Your task to perform on an android device: turn off picture-in-picture Image 0: 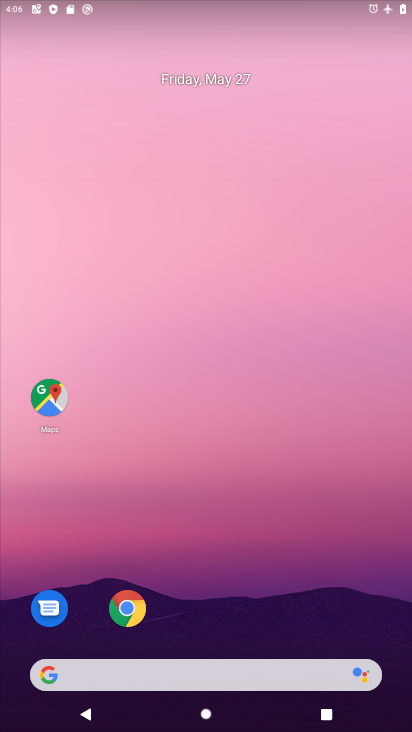
Step 0: click (130, 608)
Your task to perform on an android device: turn off picture-in-picture Image 1: 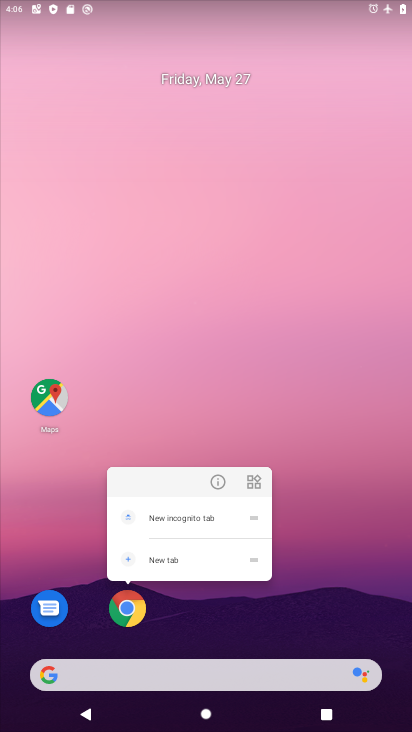
Step 1: click (217, 474)
Your task to perform on an android device: turn off picture-in-picture Image 2: 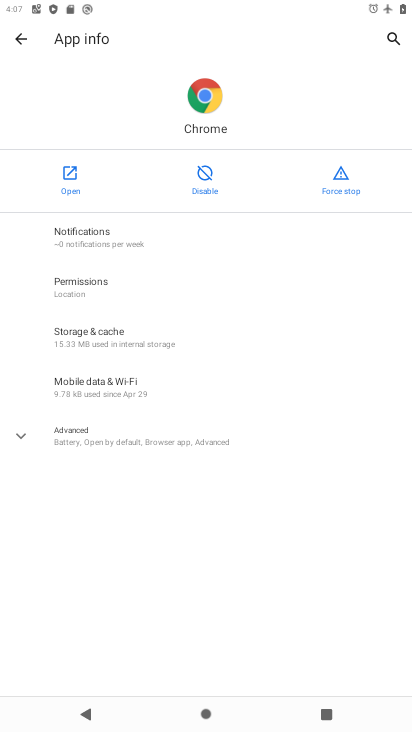
Step 2: click (89, 434)
Your task to perform on an android device: turn off picture-in-picture Image 3: 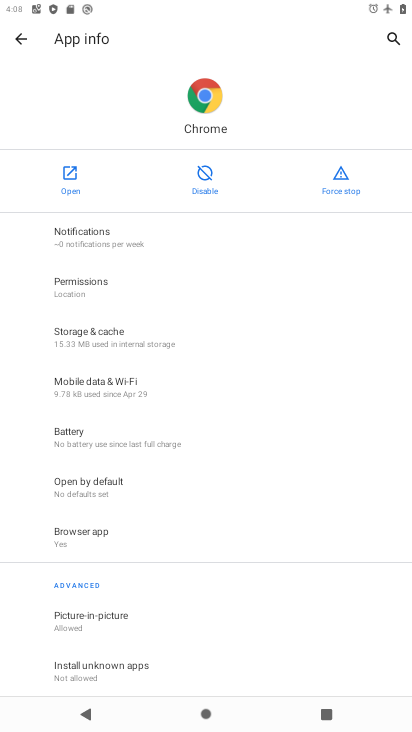
Step 3: click (91, 621)
Your task to perform on an android device: turn off picture-in-picture Image 4: 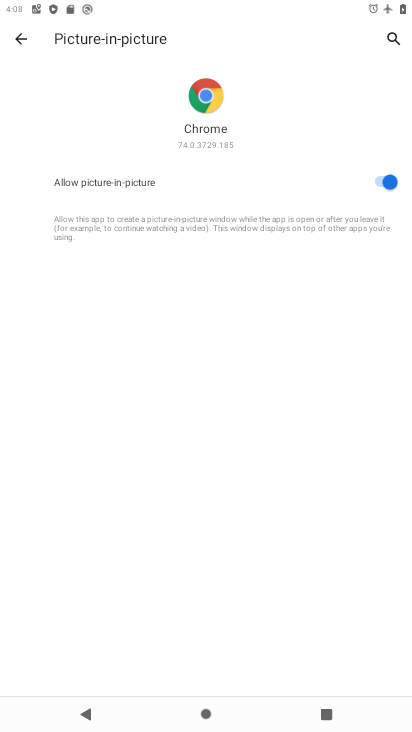
Step 4: click (386, 177)
Your task to perform on an android device: turn off picture-in-picture Image 5: 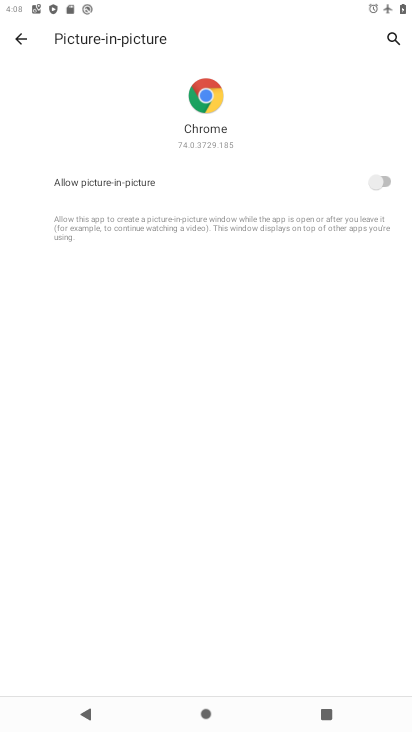
Step 5: task complete